Your task to perform on an android device: check google app version Image 0: 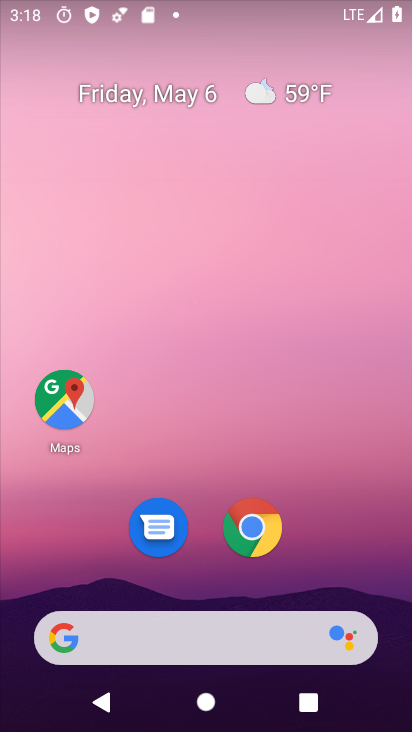
Step 0: drag from (318, 576) to (227, 83)
Your task to perform on an android device: check google app version Image 1: 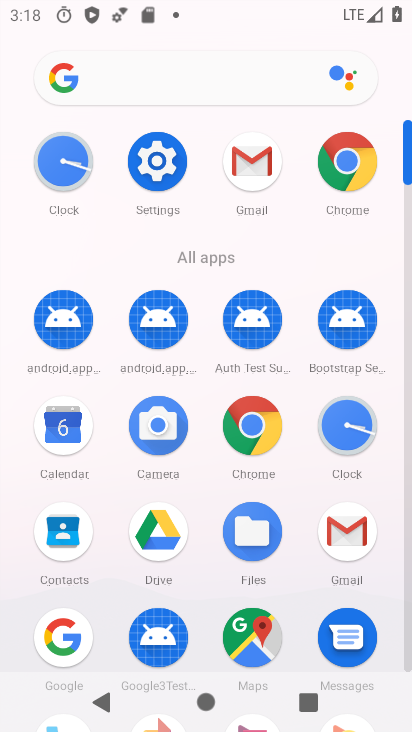
Step 1: click (62, 626)
Your task to perform on an android device: check google app version Image 2: 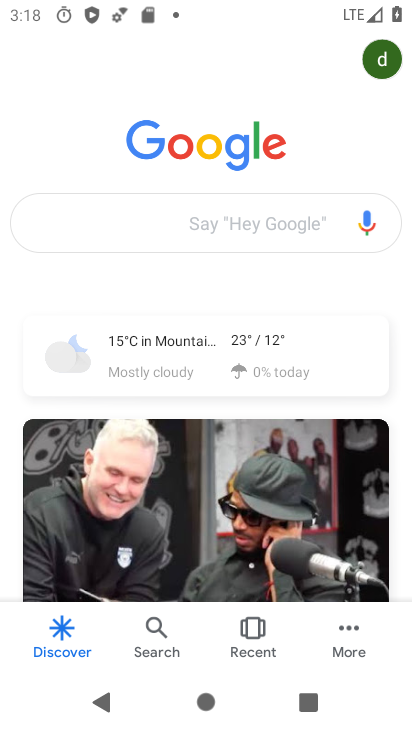
Step 2: click (354, 647)
Your task to perform on an android device: check google app version Image 3: 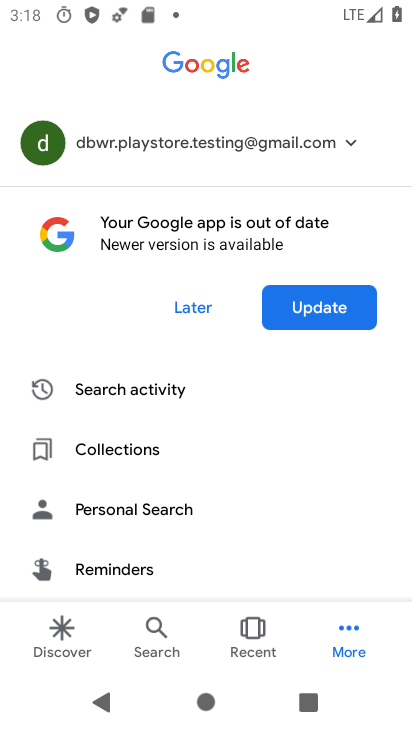
Step 3: drag from (156, 544) to (150, 125)
Your task to perform on an android device: check google app version Image 4: 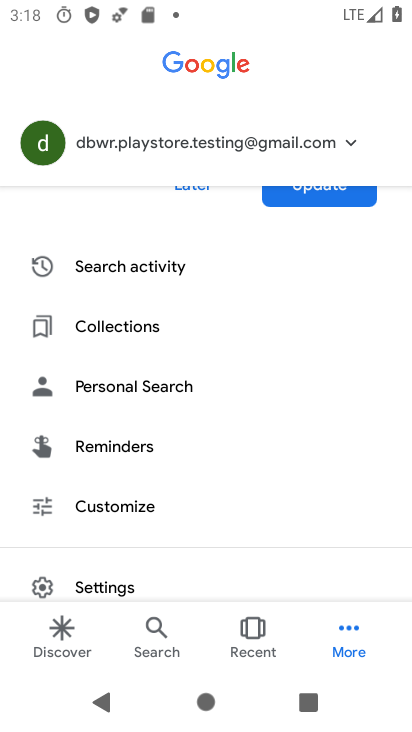
Step 4: drag from (217, 561) to (206, 141)
Your task to perform on an android device: check google app version Image 5: 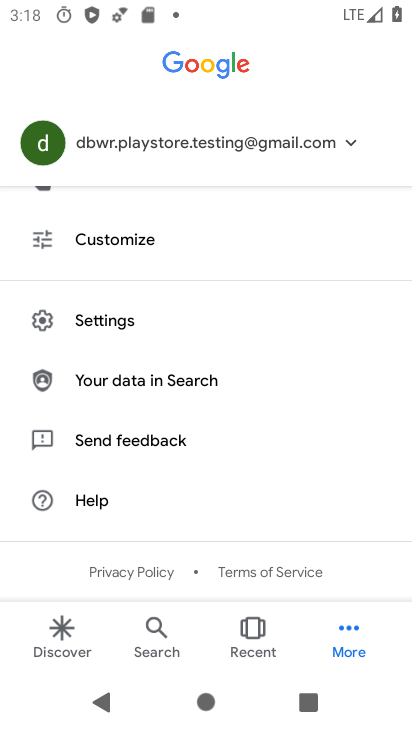
Step 5: click (87, 320)
Your task to perform on an android device: check google app version Image 6: 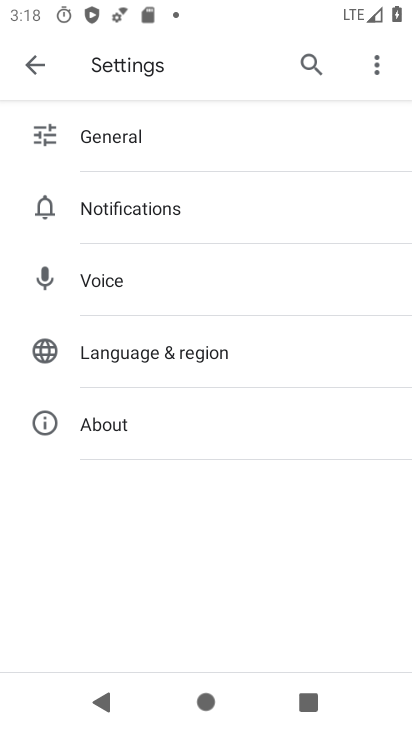
Step 6: click (163, 422)
Your task to perform on an android device: check google app version Image 7: 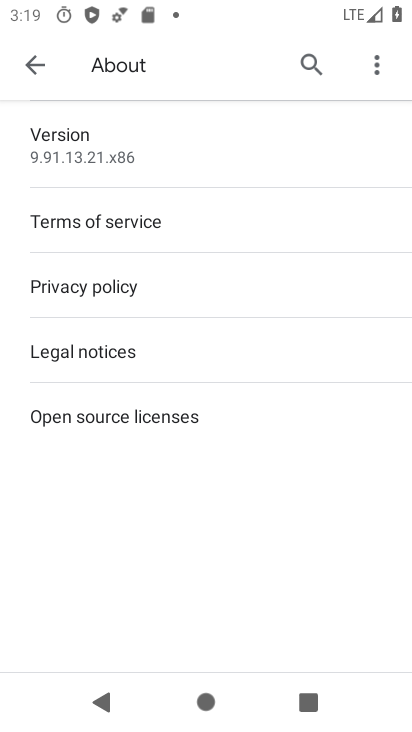
Step 7: task complete